Your task to perform on an android device: Open Google Chrome and open the bookmarks view Image 0: 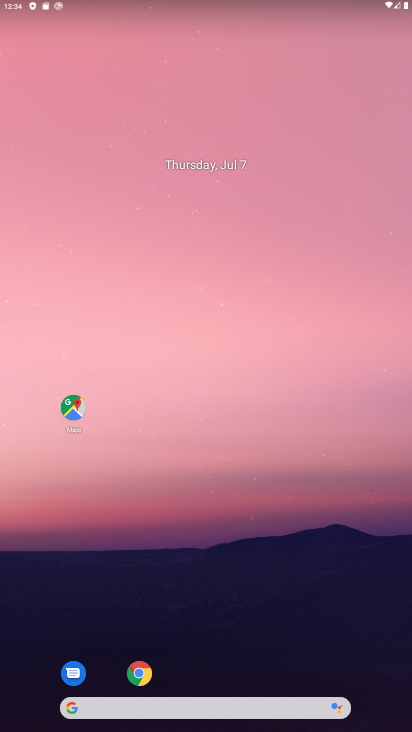
Step 0: click (135, 681)
Your task to perform on an android device: Open Google Chrome and open the bookmarks view Image 1: 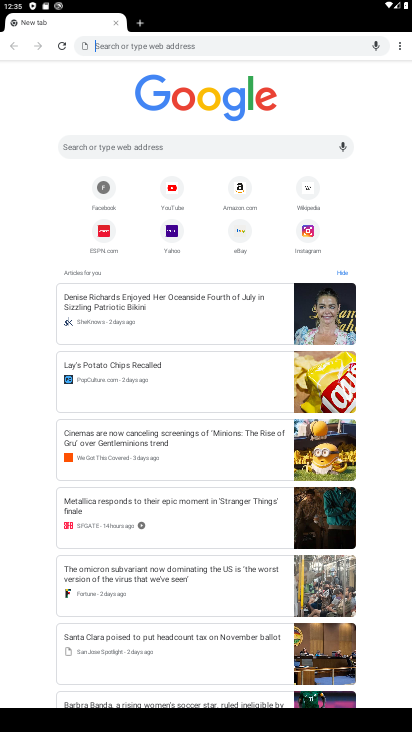
Step 1: task complete